Your task to perform on an android device: find photos in the google photos app Image 0: 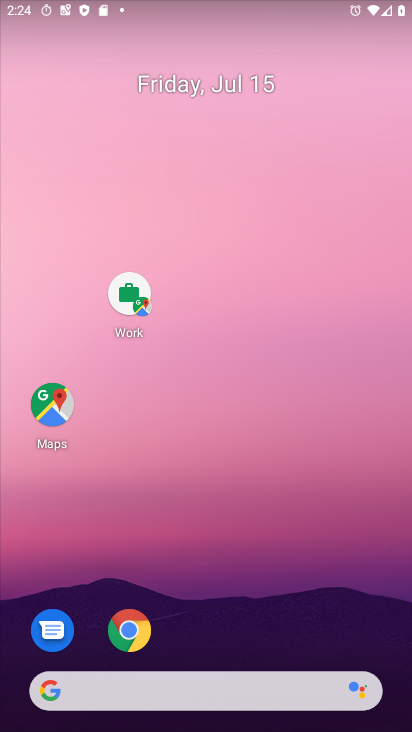
Step 0: drag from (219, 627) to (281, 172)
Your task to perform on an android device: find photos in the google photos app Image 1: 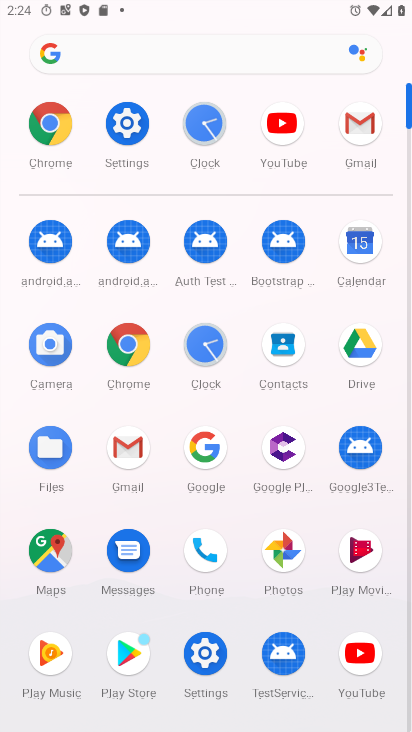
Step 1: click (279, 550)
Your task to perform on an android device: find photos in the google photos app Image 2: 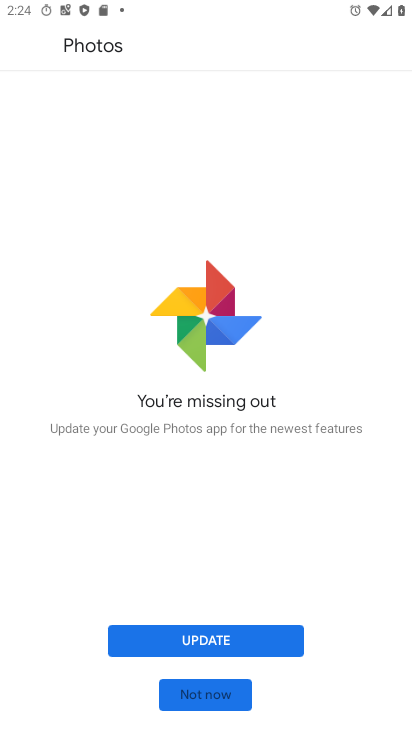
Step 2: click (216, 697)
Your task to perform on an android device: find photos in the google photos app Image 3: 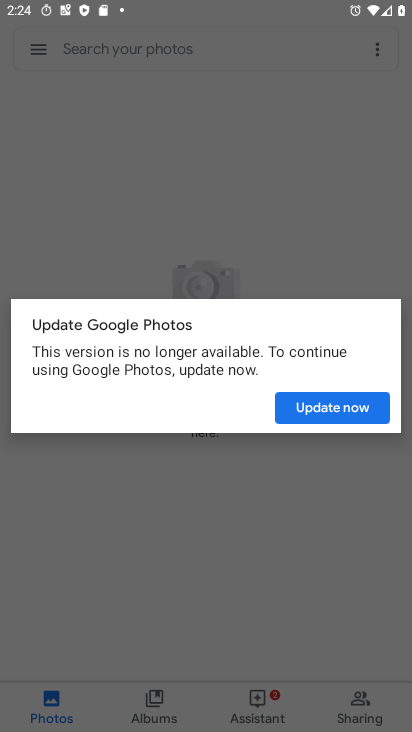
Step 3: click (210, 50)
Your task to perform on an android device: find photos in the google photos app Image 4: 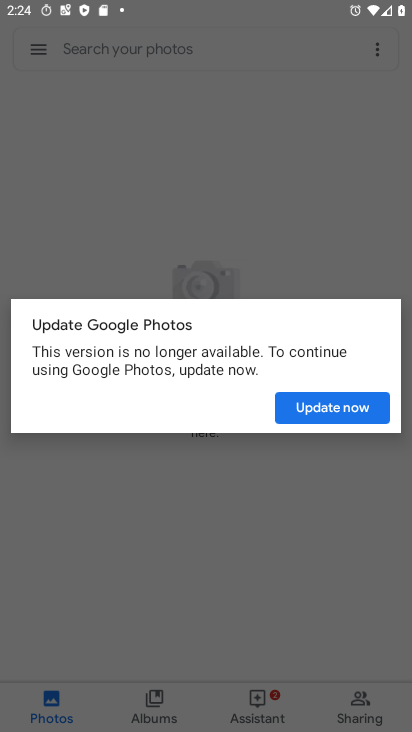
Step 4: click (315, 400)
Your task to perform on an android device: find photos in the google photos app Image 5: 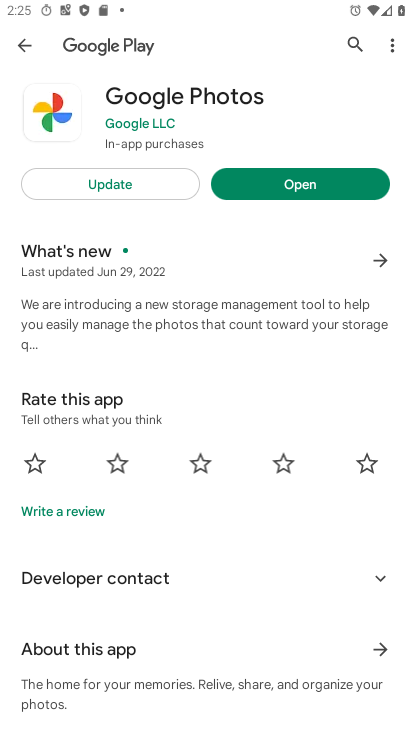
Step 5: click (359, 183)
Your task to perform on an android device: find photos in the google photos app Image 6: 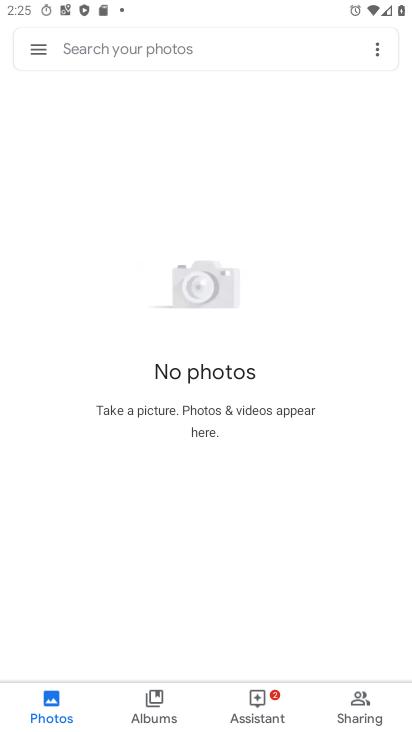
Step 6: click (166, 38)
Your task to perform on an android device: find photos in the google photos app Image 7: 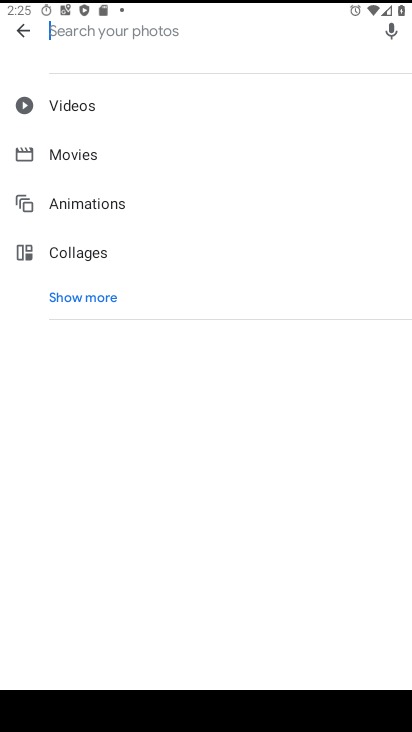
Step 7: type "aa"
Your task to perform on an android device: find photos in the google photos app Image 8: 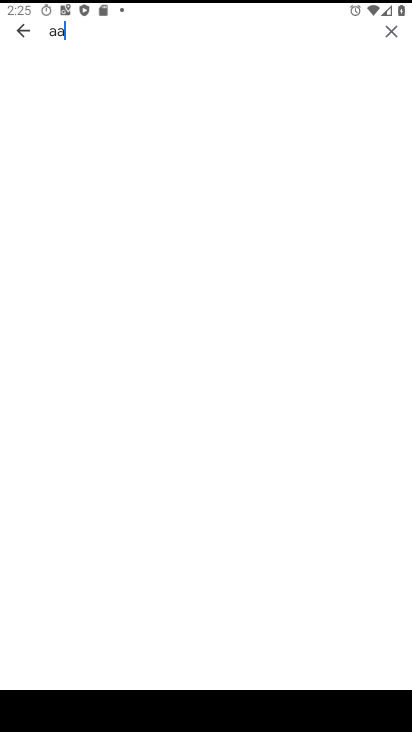
Step 8: task complete